Your task to perform on an android device: Play the latest video from the New York Times Image 0: 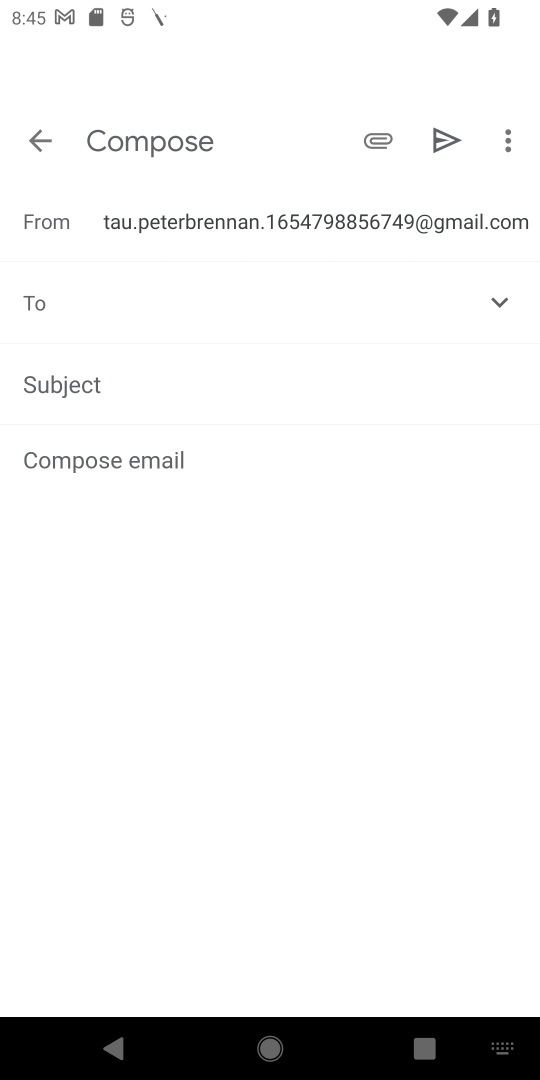
Step 0: press home button
Your task to perform on an android device: Play the latest video from the New York Times Image 1: 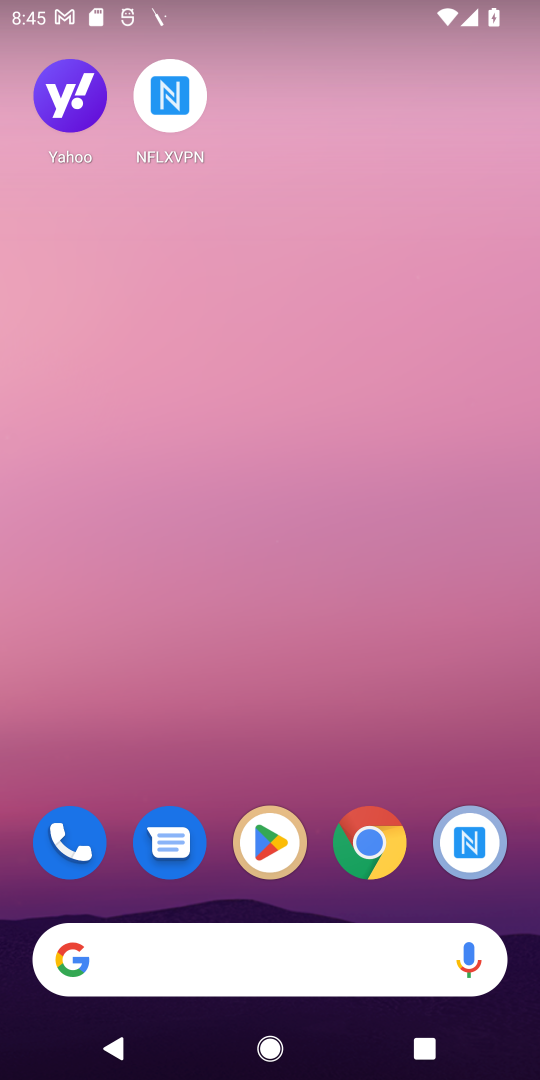
Step 1: click (366, 845)
Your task to perform on an android device: Play the latest video from the New York Times Image 2: 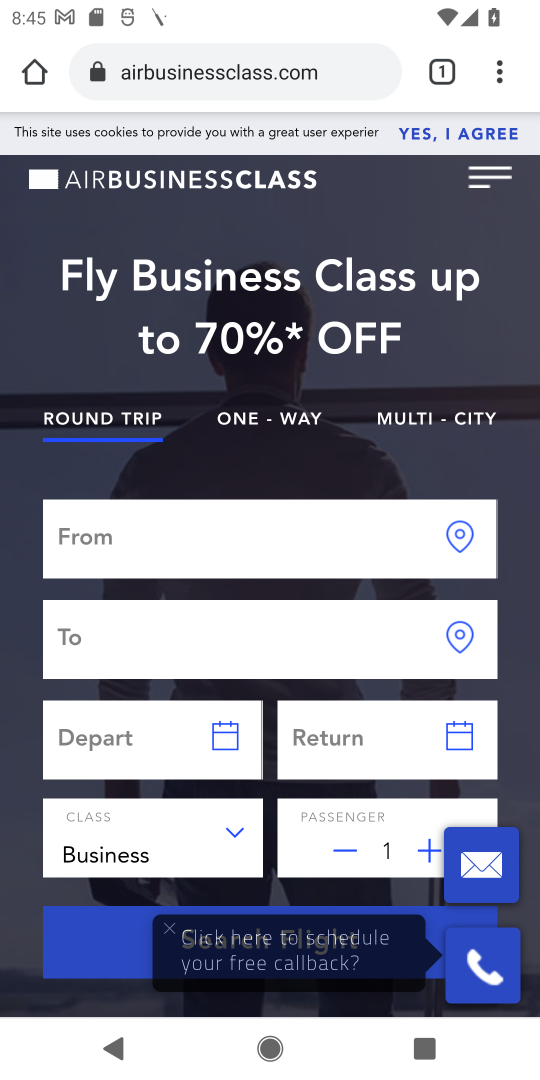
Step 2: click (217, 66)
Your task to perform on an android device: Play the latest video from the New York Times Image 3: 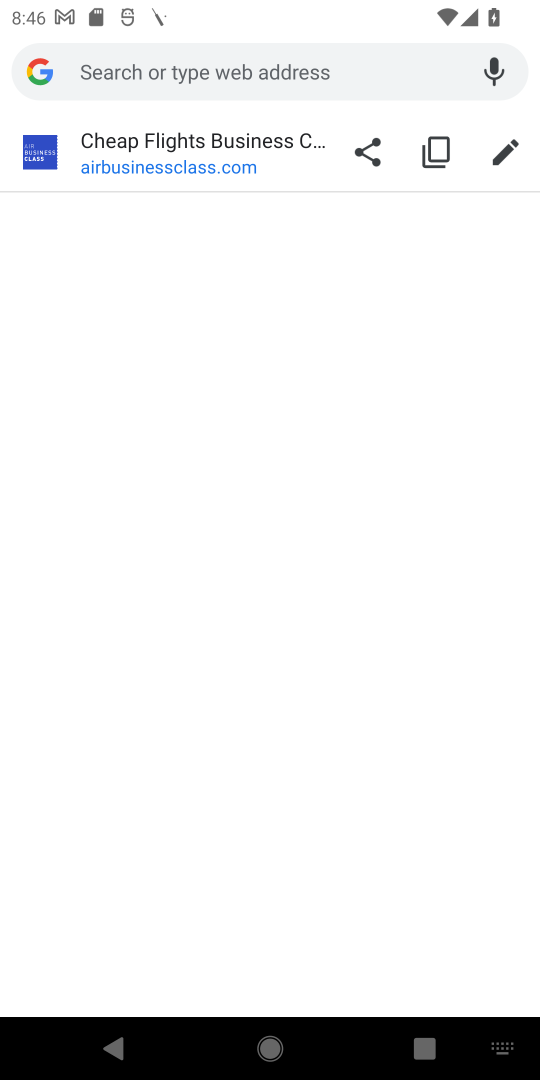
Step 3: type "latest video from the new york times"
Your task to perform on an android device: Play the latest video from the New York Times Image 4: 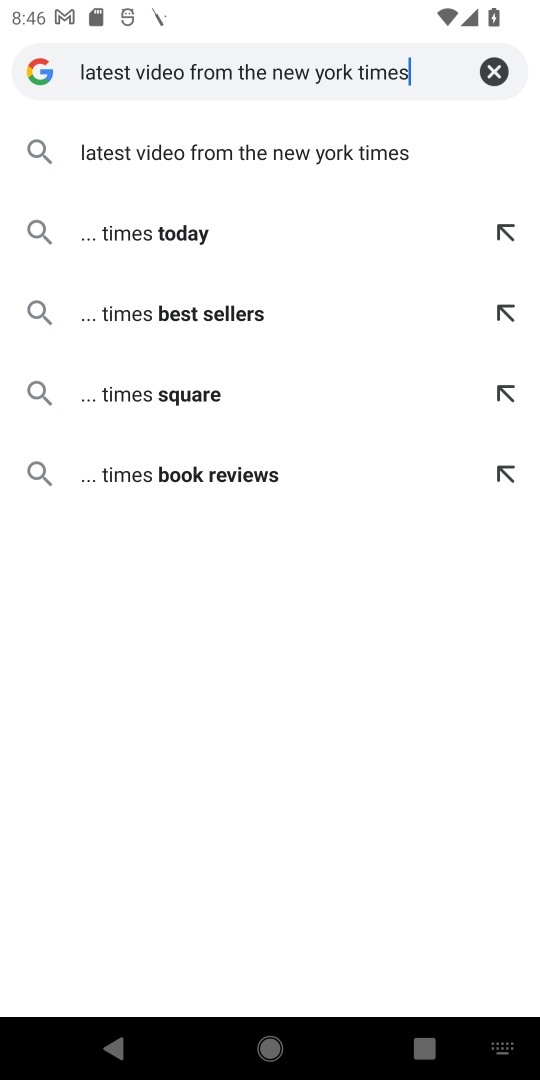
Step 4: click (209, 155)
Your task to perform on an android device: Play the latest video from the New York Times Image 5: 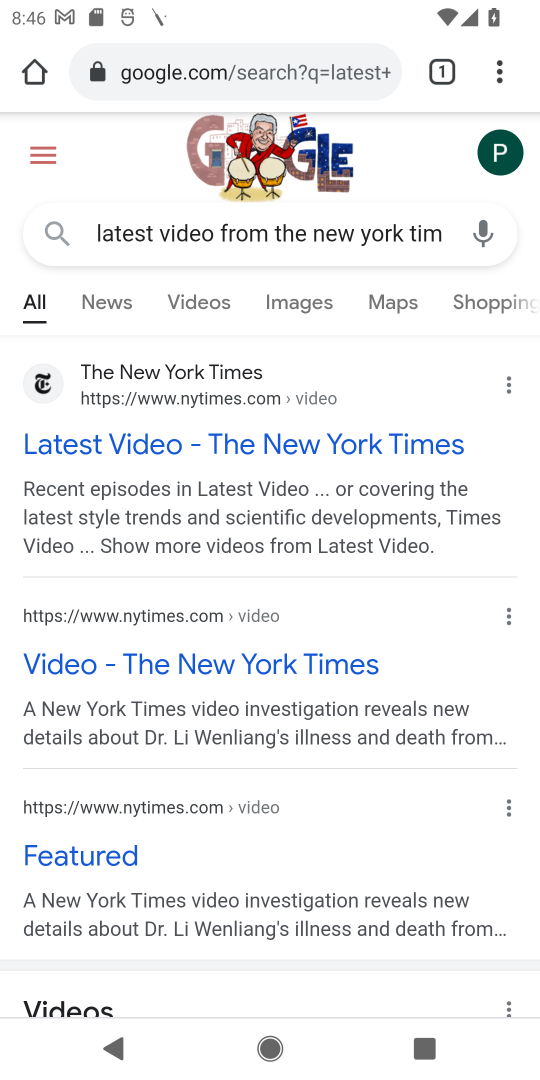
Step 5: click (288, 442)
Your task to perform on an android device: Play the latest video from the New York Times Image 6: 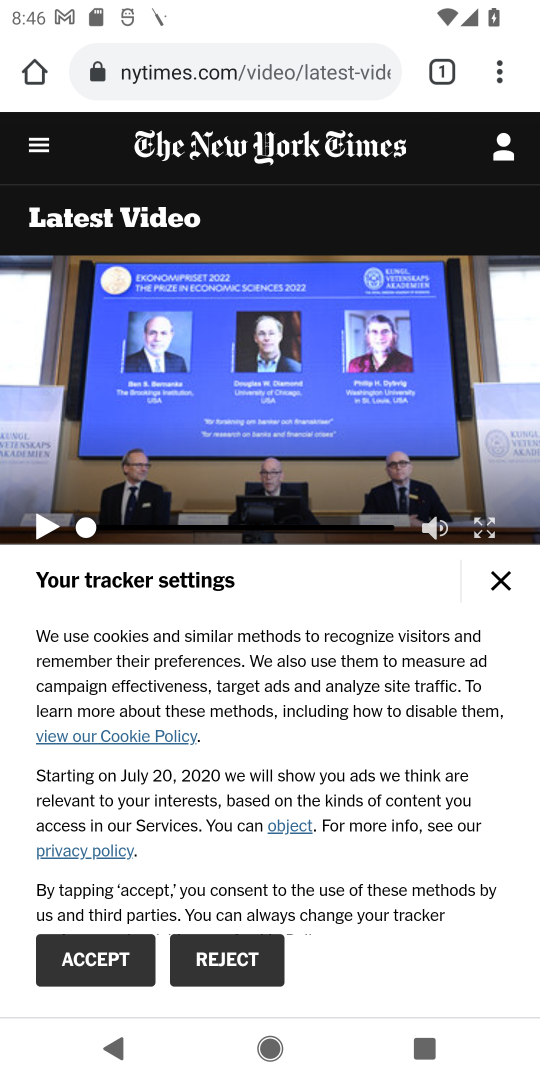
Step 6: click (501, 579)
Your task to perform on an android device: Play the latest video from the New York Times Image 7: 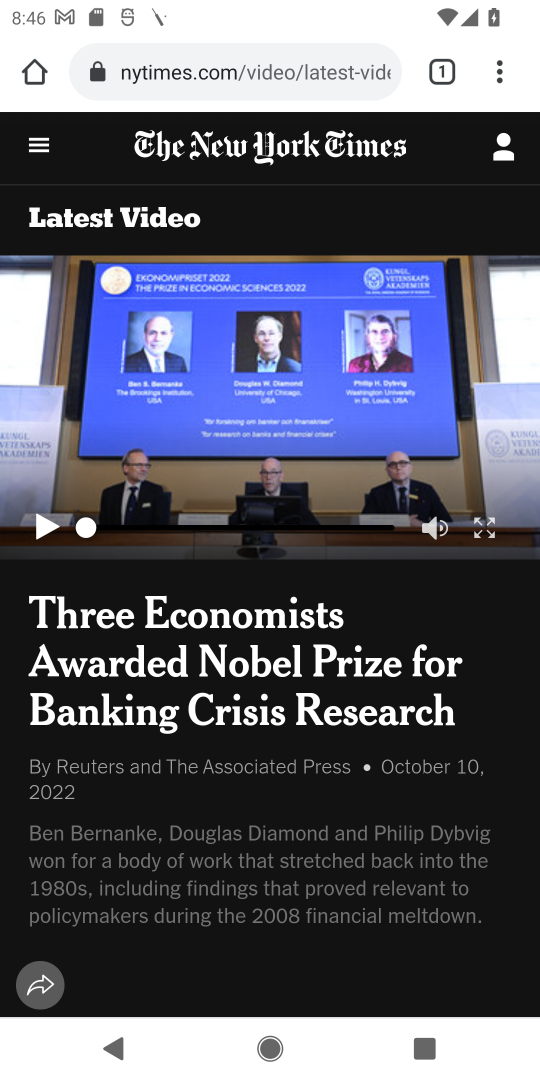
Step 7: task complete